Your task to perform on an android device: open a new tab in the chrome app Image 0: 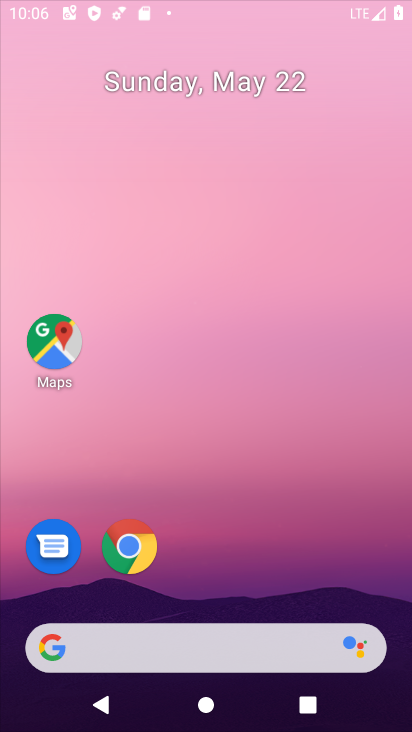
Step 0: click (395, 217)
Your task to perform on an android device: open a new tab in the chrome app Image 1: 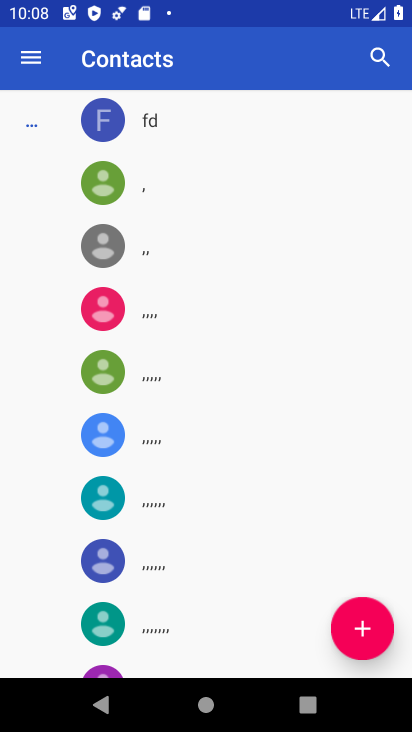
Step 1: press home button
Your task to perform on an android device: open a new tab in the chrome app Image 2: 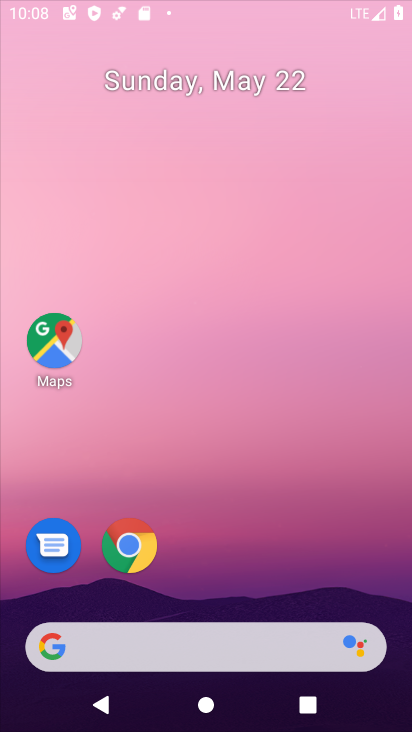
Step 2: drag from (220, 534) to (323, 221)
Your task to perform on an android device: open a new tab in the chrome app Image 3: 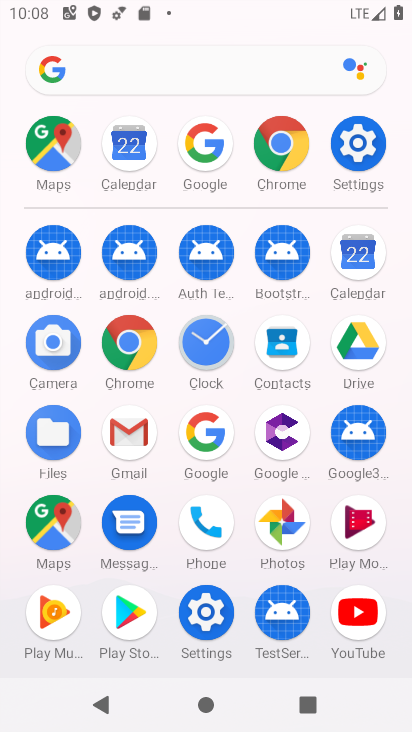
Step 3: click (131, 333)
Your task to perform on an android device: open a new tab in the chrome app Image 4: 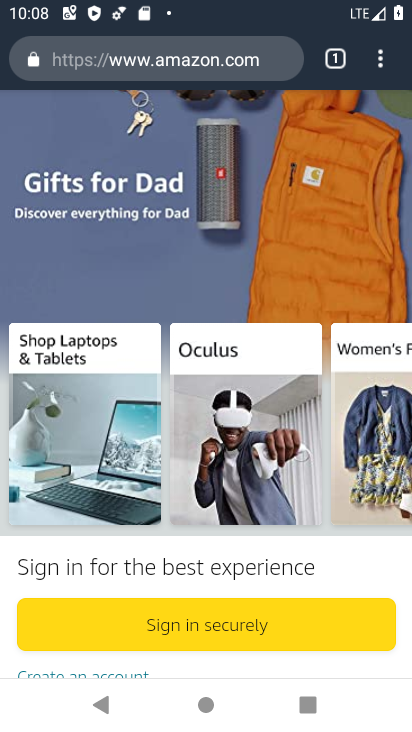
Step 4: click (339, 68)
Your task to perform on an android device: open a new tab in the chrome app Image 5: 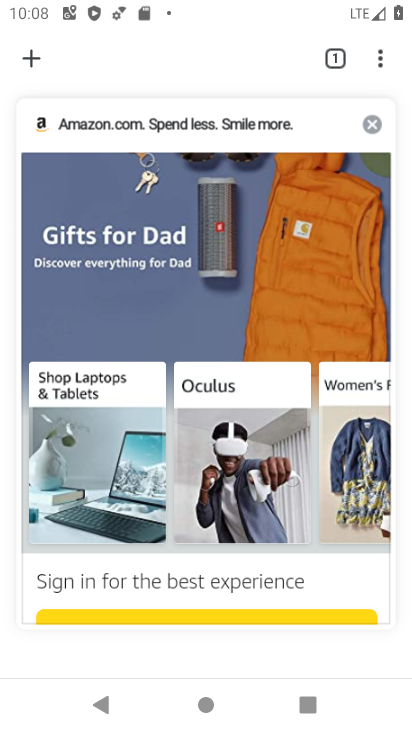
Step 5: click (28, 54)
Your task to perform on an android device: open a new tab in the chrome app Image 6: 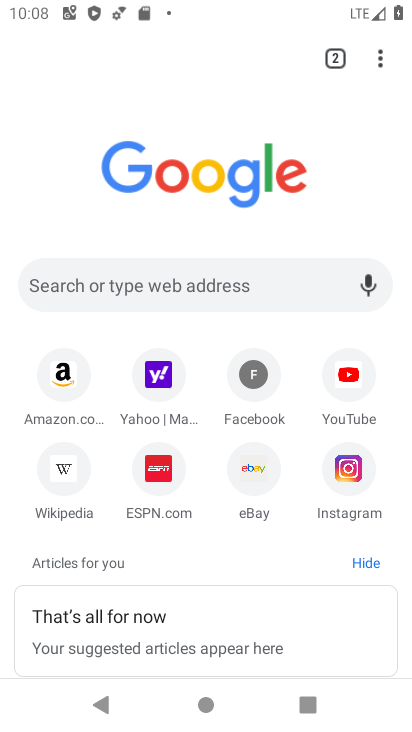
Step 6: task complete